Your task to perform on an android device: Open maps Image 0: 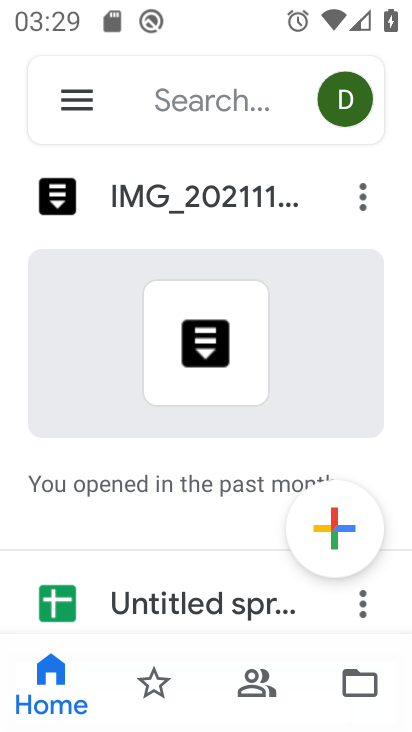
Step 0: press home button
Your task to perform on an android device: Open maps Image 1: 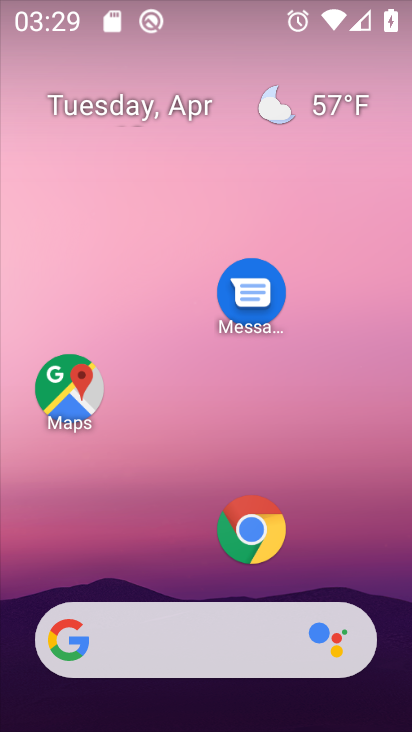
Step 1: click (68, 389)
Your task to perform on an android device: Open maps Image 2: 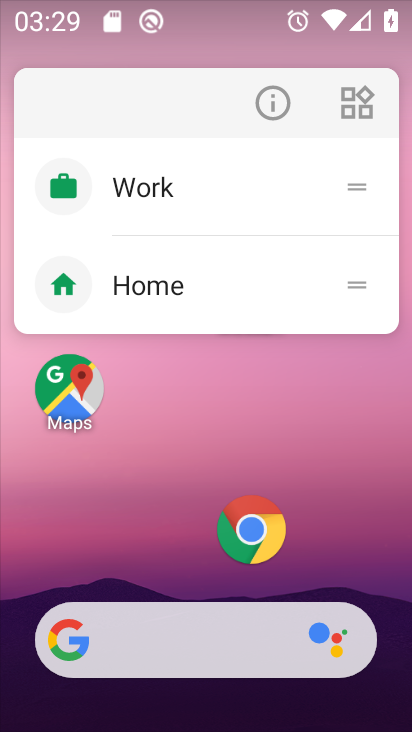
Step 2: click (68, 389)
Your task to perform on an android device: Open maps Image 3: 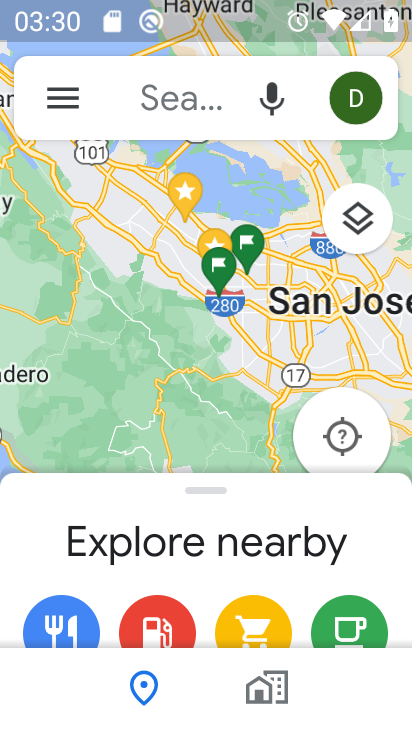
Step 3: task complete